Your task to perform on an android device: Search for seafood restaurants on Google Maps Image 0: 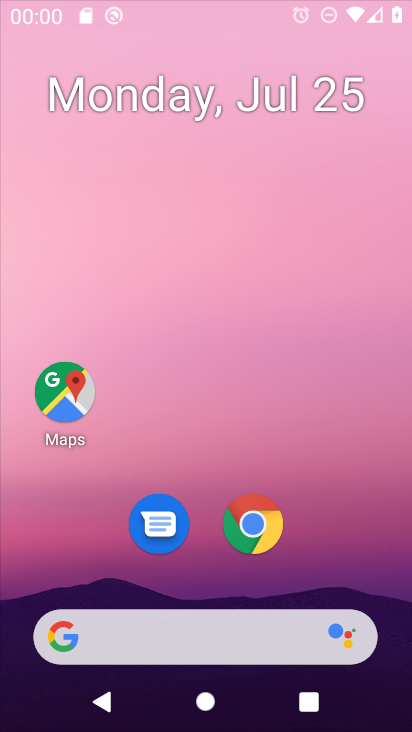
Step 0: press home button
Your task to perform on an android device: Search for seafood restaurants on Google Maps Image 1: 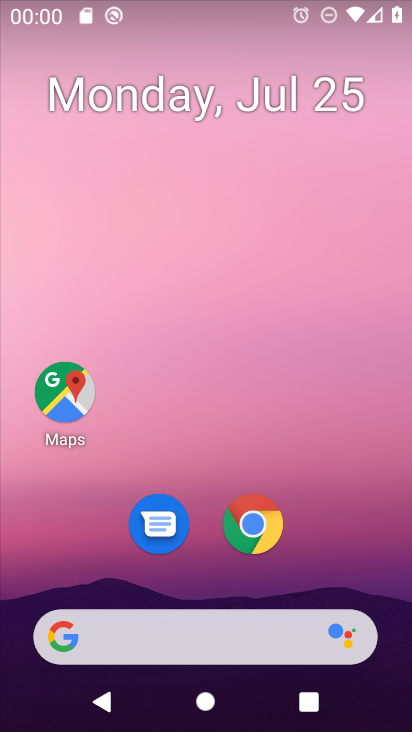
Step 1: click (55, 386)
Your task to perform on an android device: Search for seafood restaurants on Google Maps Image 2: 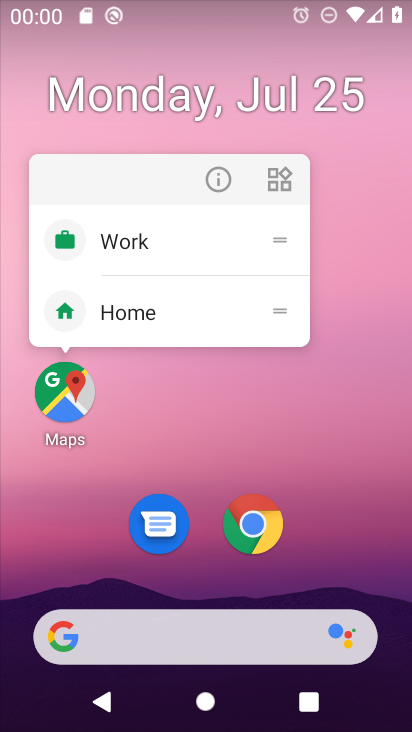
Step 2: click (70, 390)
Your task to perform on an android device: Search for seafood restaurants on Google Maps Image 3: 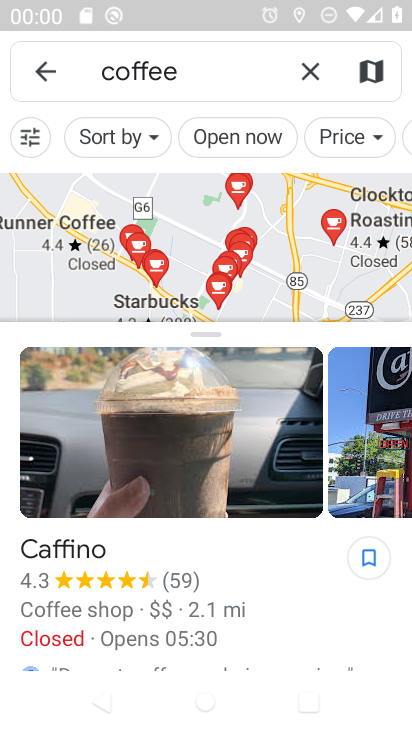
Step 3: click (310, 68)
Your task to perform on an android device: Search for seafood restaurants on Google Maps Image 4: 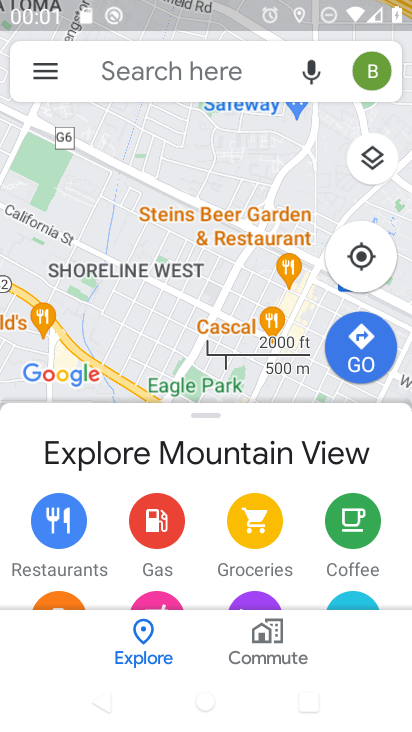
Step 4: click (177, 77)
Your task to perform on an android device: Search for seafood restaurants on Google Maps Image 5: 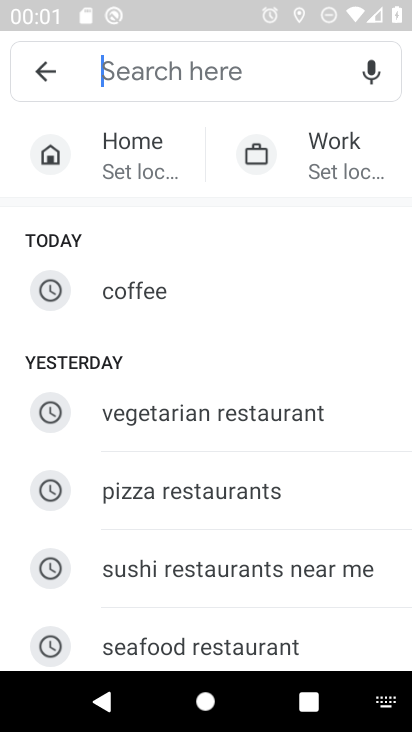
Step 5: drag from (248, 550) to (279, 191)
Your task to perform on an android device: Search for seafood restaurants on Google Maps Image 6: 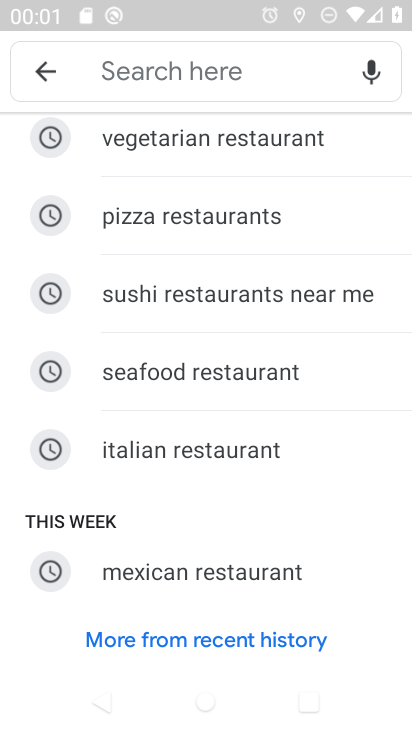
Step 6: click (203, 381)
Your task to perform on an android device: Search for seafood restaurants on Google Maps Image 7: 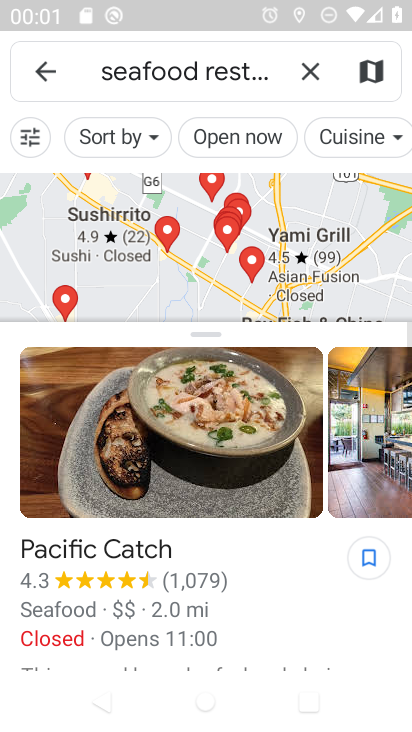
Step 7: task complete